Your task to perform on an android device: Play the last video I watched on Youtube Image 0: 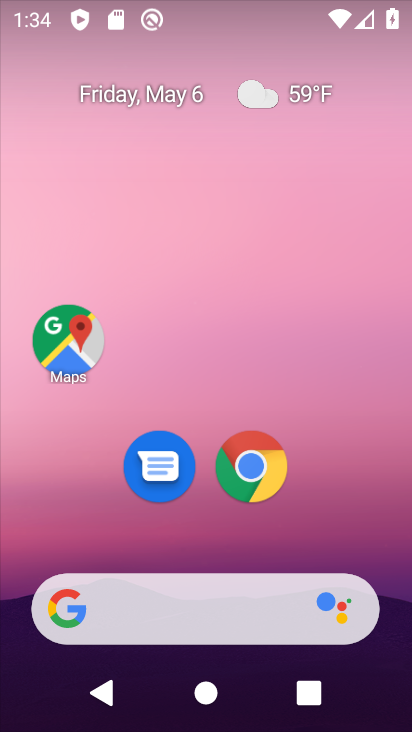
Step 0: press home button
Your task to perform on an android device: Play the last video I watched on Youtube Image 1: 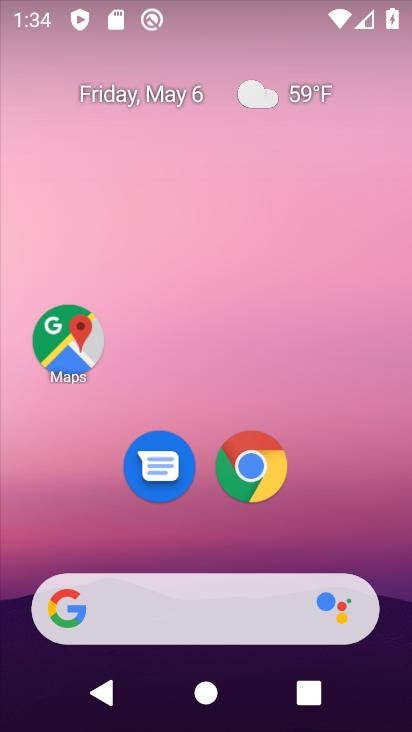
Step 1: drag from (212, 536) to (258, 69)
Your task to perform on an android device: Play the last video I watched on Youtube Image 2: 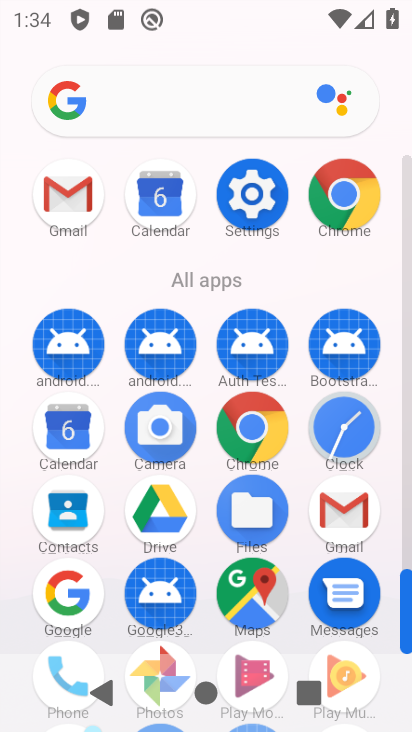
Step 2: drag from (204, 550) to (237, 171)
Your task to perform on an android device: Play the last video I watched on Youtube Image 3: 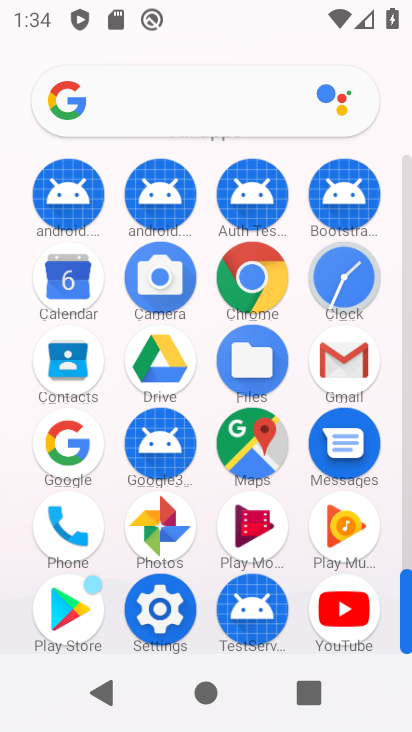
Step 3: click (334, 599)
Your task to perform on an android device: Play the last video I watched on Youtube Image 4: 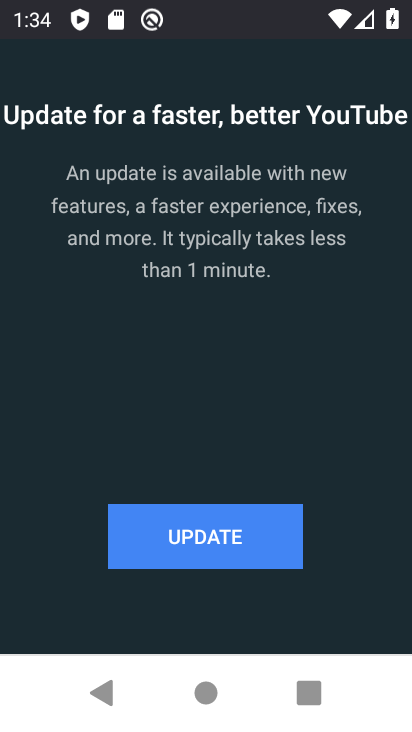
Step 4: click (202, 530)
Your task to perform on an android device: Play the last video I watched on Youtube Image 5: 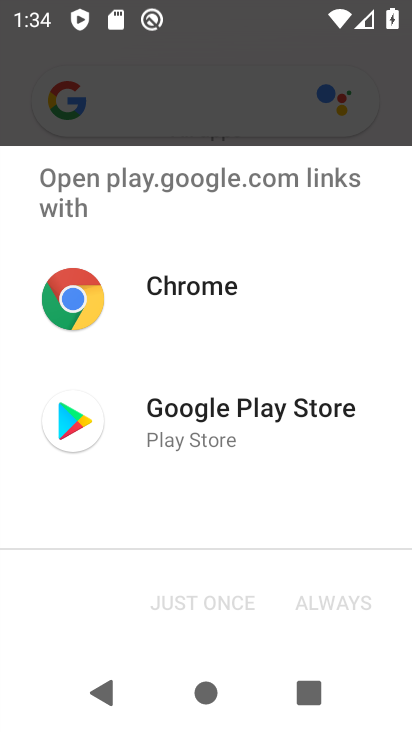
Step 5: click (162, 442)
Your task to perform on an android device: Play the last video I watched on Youtube Image 6: 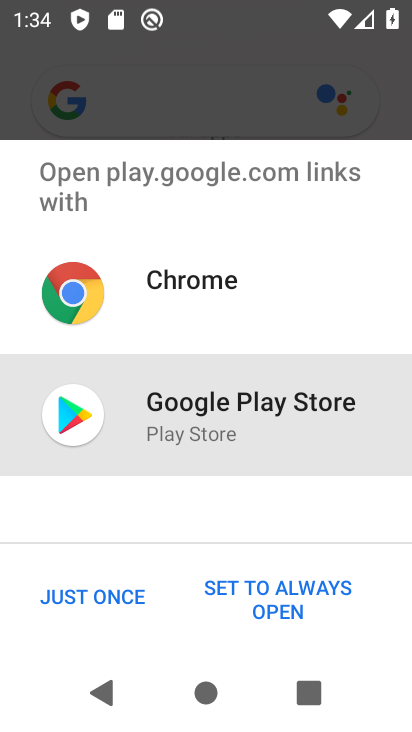
Step 6: click (97, 600)
Your task to perform on an android device: Play the last video I watched on Youtube Image 7: 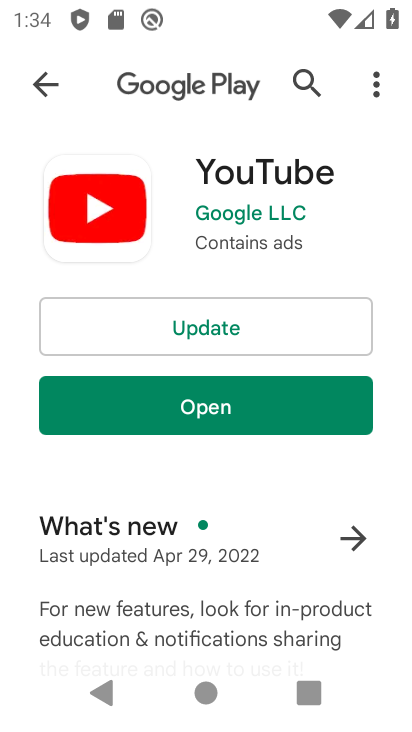
Step 7: click (204, 323)
Your task to perform on an android device: Play the last video I watched on Youtube Image 8: 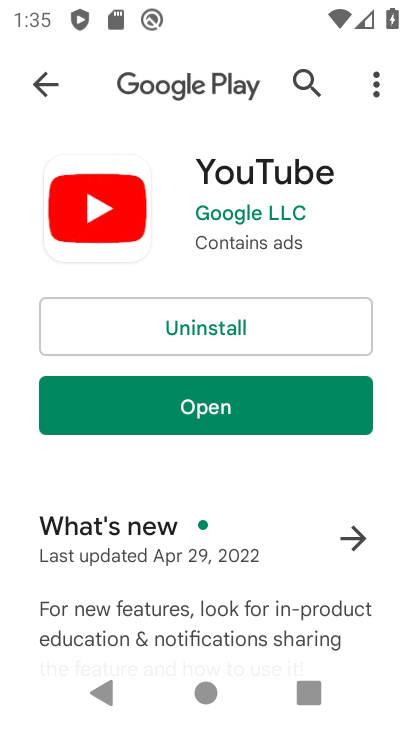
Step 8: click (217, 409)
Your task to perform on an android device: Play the last video I watched on Youtube Image 9: 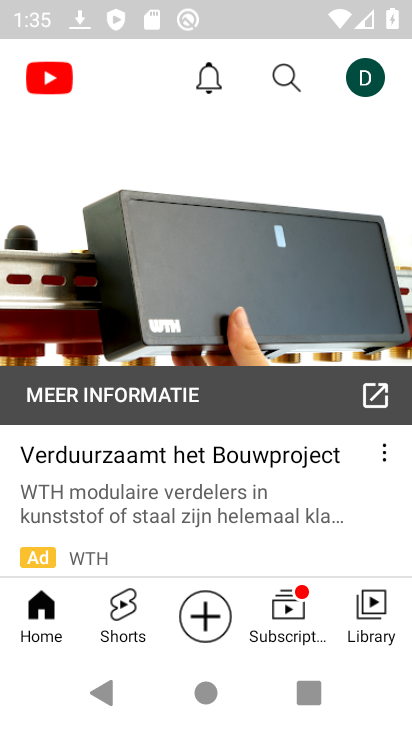
Step 9: task complete